Your task to perform on an android device: Go to Amazon Image 0: 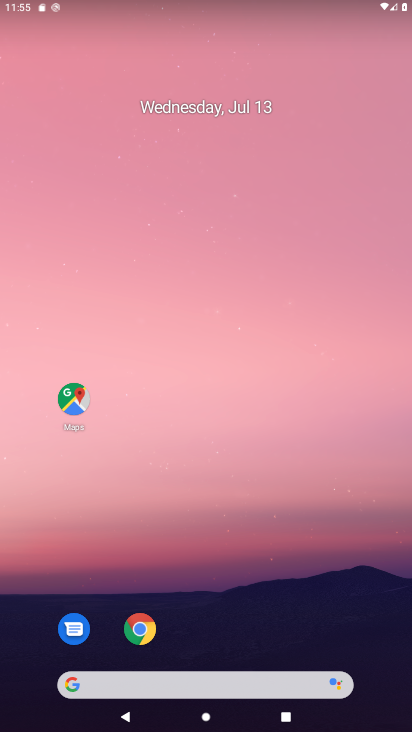
Step 0: click (227, 642)
Your task to perform on an android device: Go to Amazon Image 1: 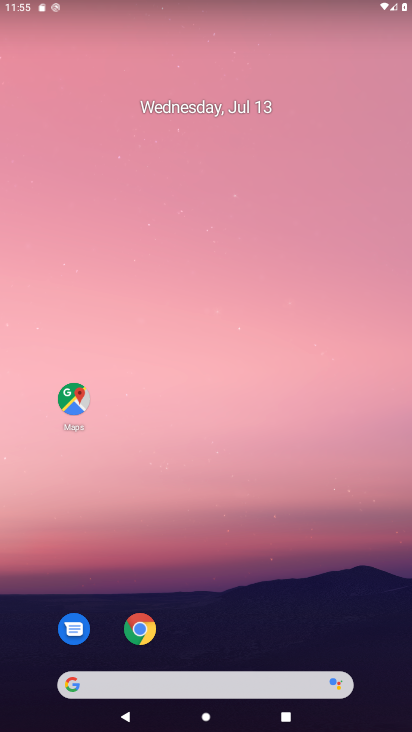
Step 1: click (125, 613)
Your task to perform on an android device: Go to Amazon Image 2: 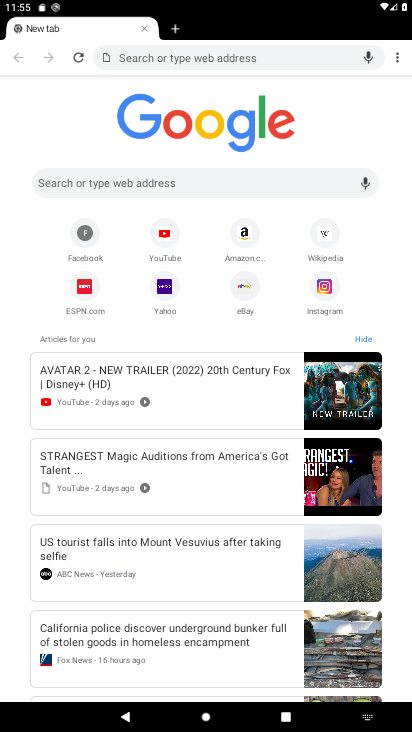
Step 2: click (227, 244)
Your task to perform on an android device: Go to Amazon Image 3: 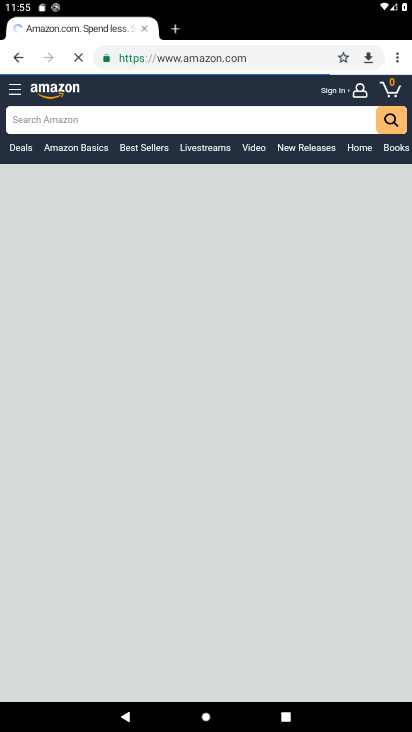
Step 3: task complete